Your task to perform on an android device: open chrome privacy settings Image 0: 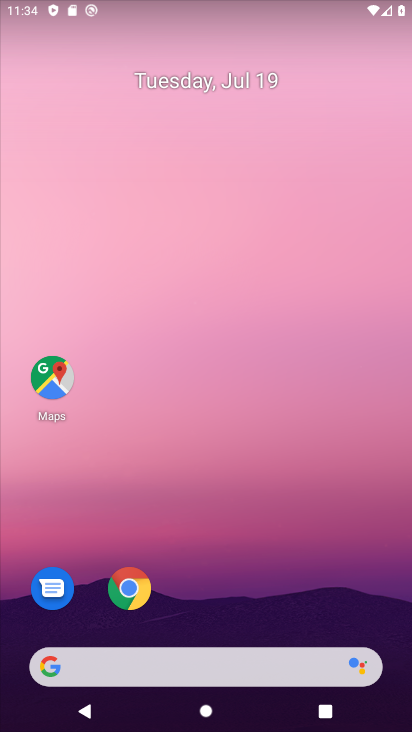
Step 0: click (127, 592)
Your task to perform on an android device: open chrome privacy settings Image 1: 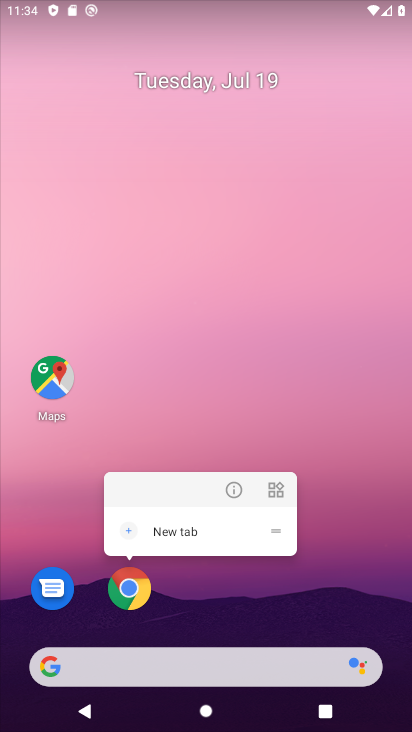
Step 1: click (127, 591)
Your task to perform on an android device: open chrome privacy settings Image 2: 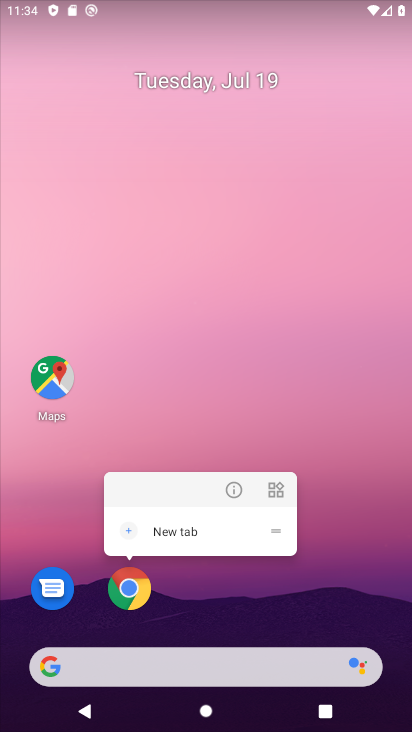
Step 2: click (128, 592)
Your task to perform on an android device: open chrome privacy settings Image 3: 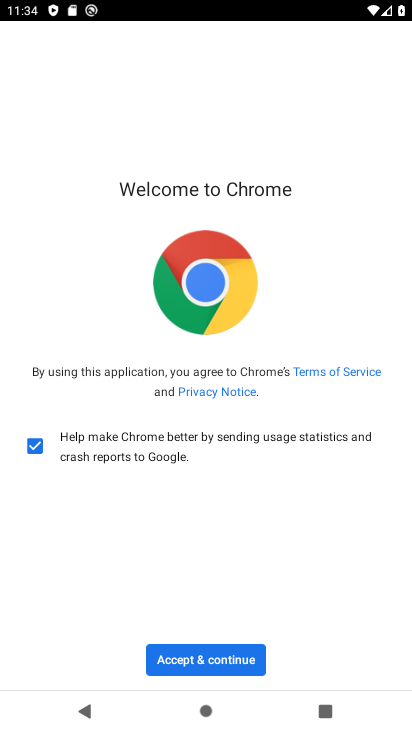
Step 3: click (209, 653)
Your task to perform on an android device: open chrome privacy settings Image 4: 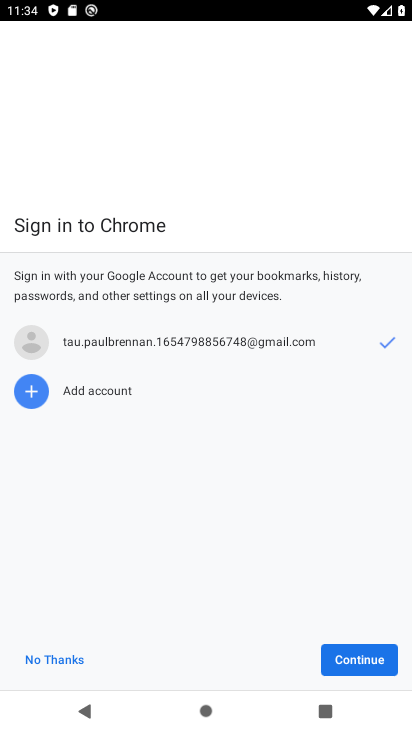
Step 4: click (331, 652)
Your task to perform on an android device: open chrome privacy settings Image 5: 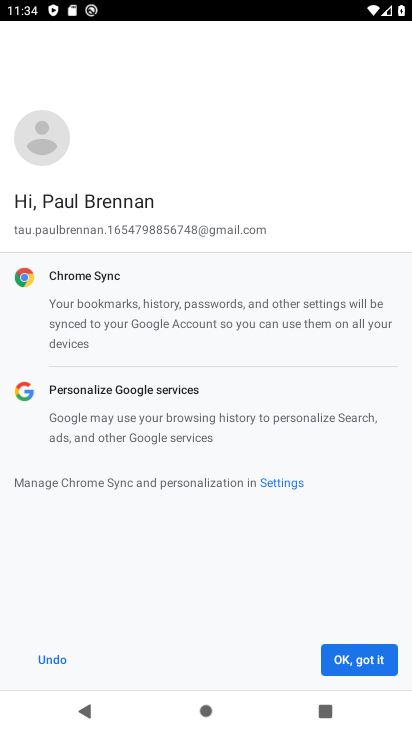
Step 5: click (336, 655)
Your task to perform on an android device: open chrome privacy settings Image 6: 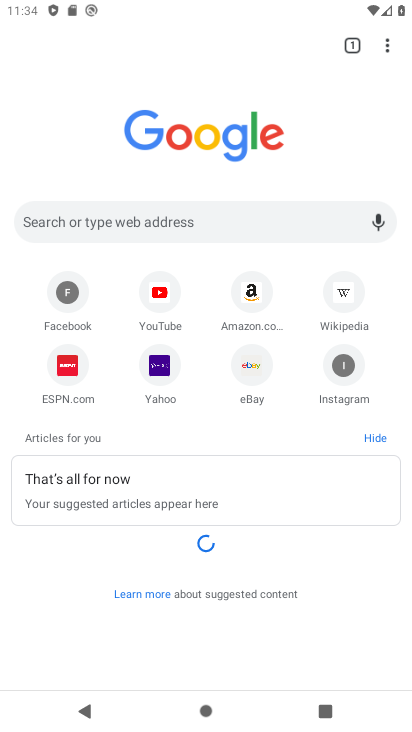
Step 6: click (389, 48)
Your task to perform on an android device: open chrome privacy settings Image 7: 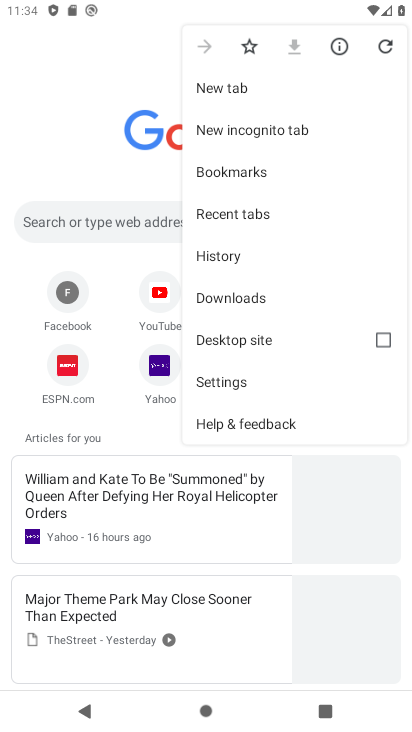
Step 7: click (237, 380)
Your task to perform on an android device: open chrome privacy settings Image 8: 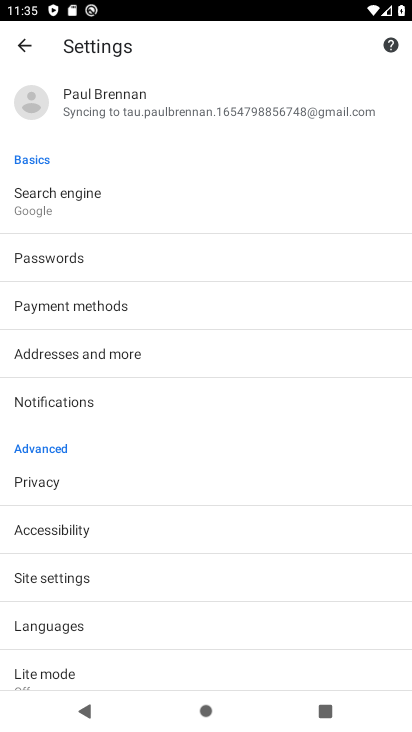
Step 8: click (70, 492)
Your task to perform on an android device: open chrome privacy settings Image 9: 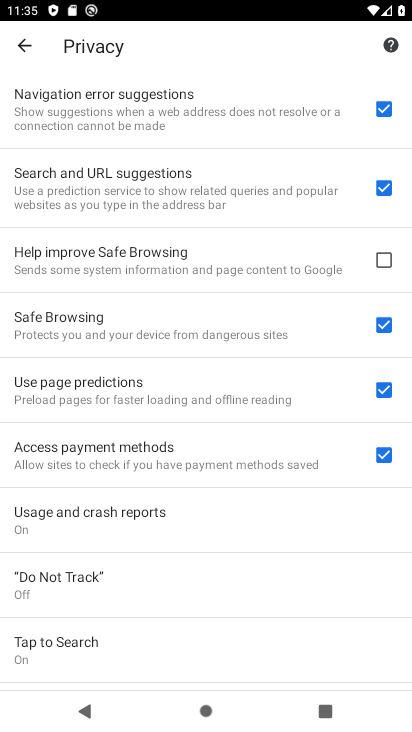
Step 9: task complete